Your task to perform on an android device: What's on my calendar tomorrow? Image 0: 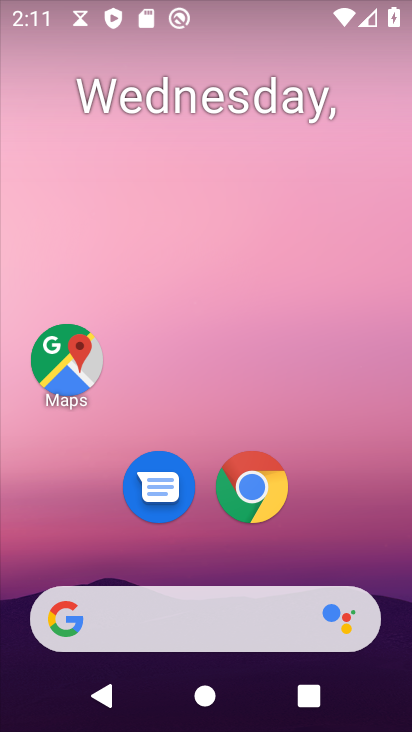
Step 0: drag from (338, 660) to (262, 161)
Your task to perform on an android device: What's on my calendar tomorrow? Image 1: 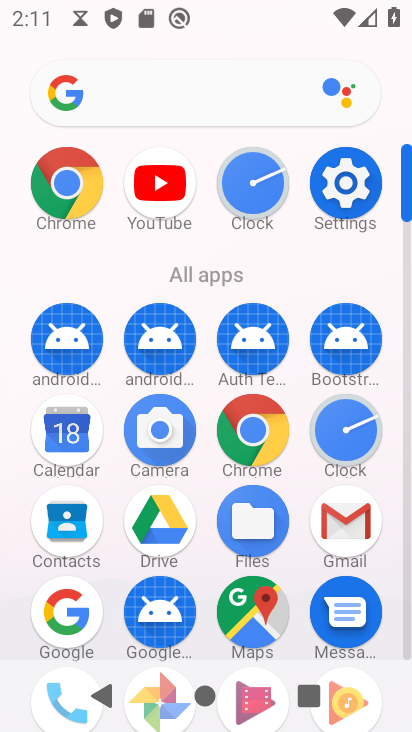
Step 1: click (58, 439)
Your task to perform on an android device: What's on my calendar tomorrow? Image 2: 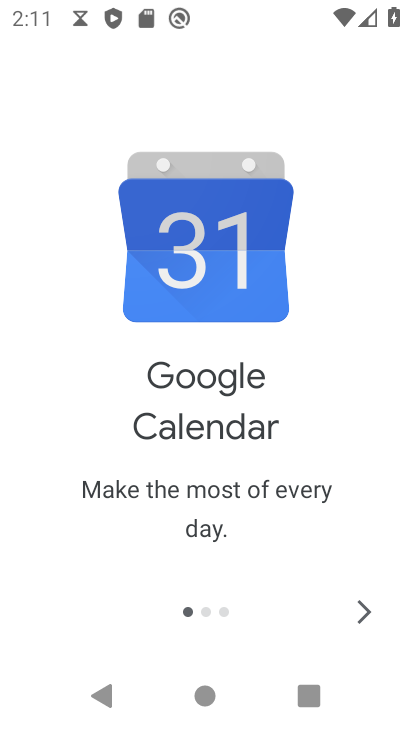
Step 2: click (364, 608)
Your task to perform on an android device: What's on my calendar tomorrow? Image 3: 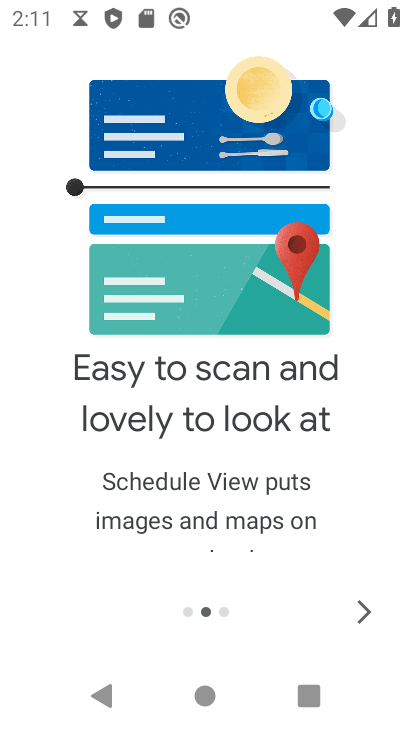
Step 3: click (356, 604)
Your task to perform on an android device: What's on my calendar tomorrow? Image 4: 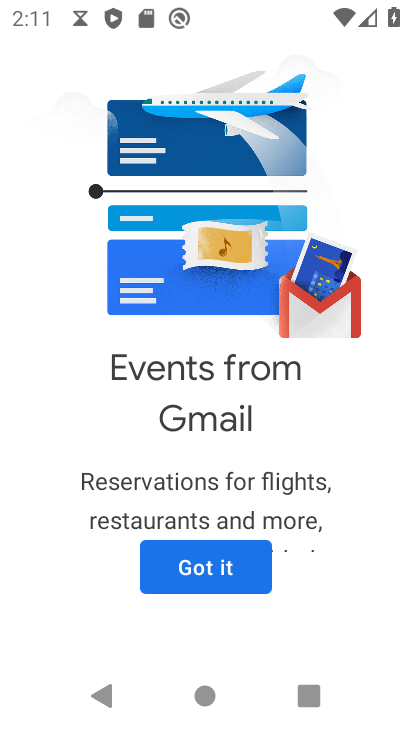
Step 4: click (229, 556)
Your task to perform on an android device: What's on my calendar tomorrow? Image 5: 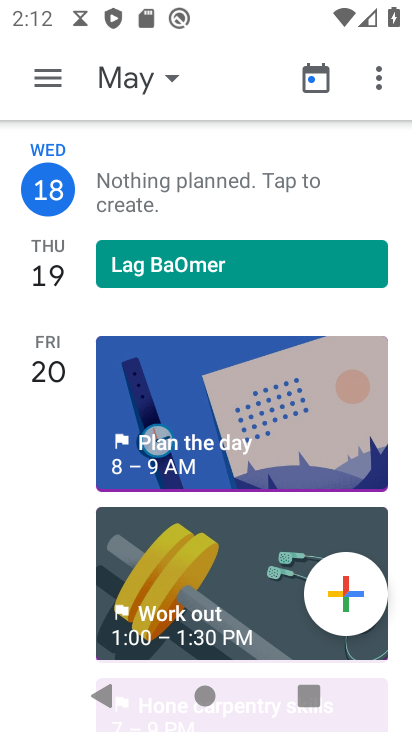
Step 5: click (124, 193)
Your task to perform on an android device: What's on my calendar tomorrow? Image 6: 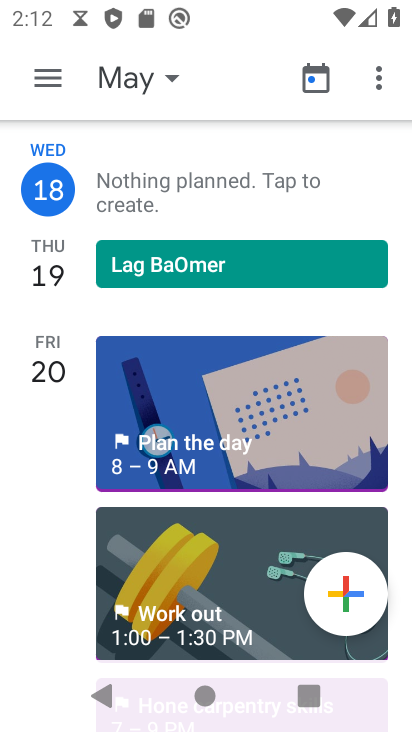
Step 6: click (124, 190)
Your task to perform on an android device: What's on my calendar tomorrow? Image 7: 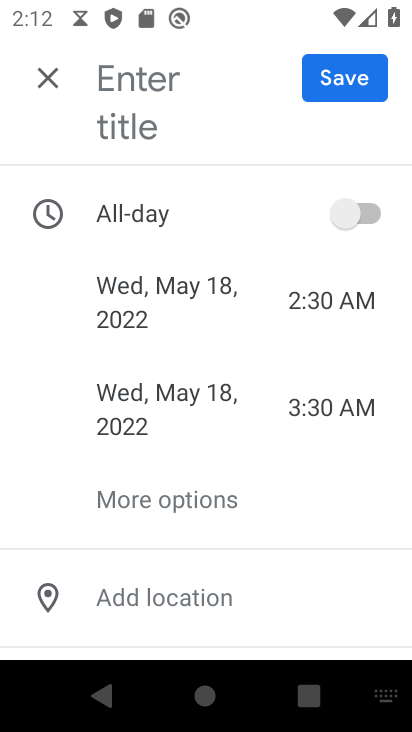
Step 7: task complete